Your task to perform on an android device: turn on javascript in the chrome app Image 0: 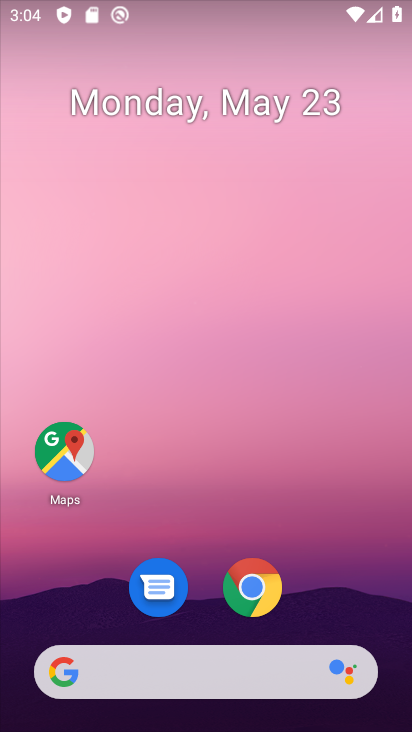
Step 0: press home button
Your task to perform on an android device: turn on javascript in the chrome app Image 1: 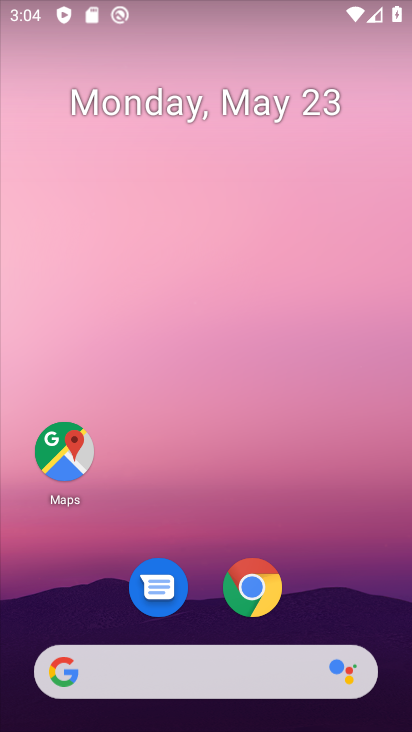
Step 1: drag from (171, 679) to (330, 143)
Your task to perform on an android device: turn on javascript in the chrome app Image 2: 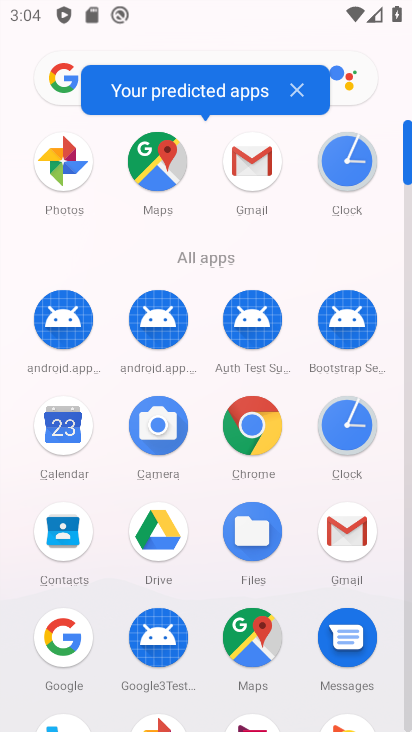
Step 2: click (252, 430)
Your task to perform on an android device: turn on javascript in the chrome app Image 3: 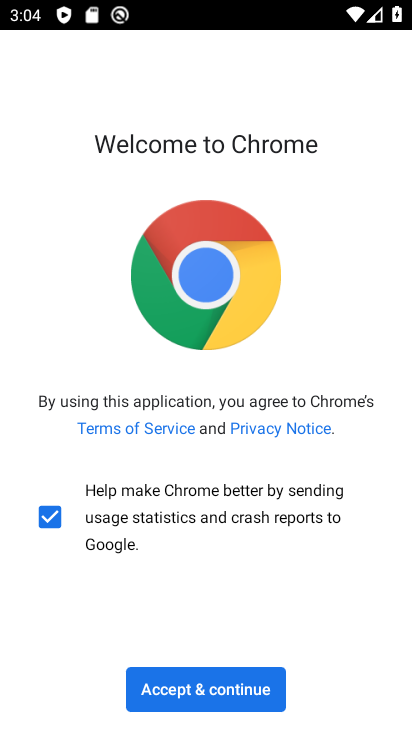
Step 3: click (185, 697)
Your task to perform on an android device: turn on javascript in the chrome app Image 4: 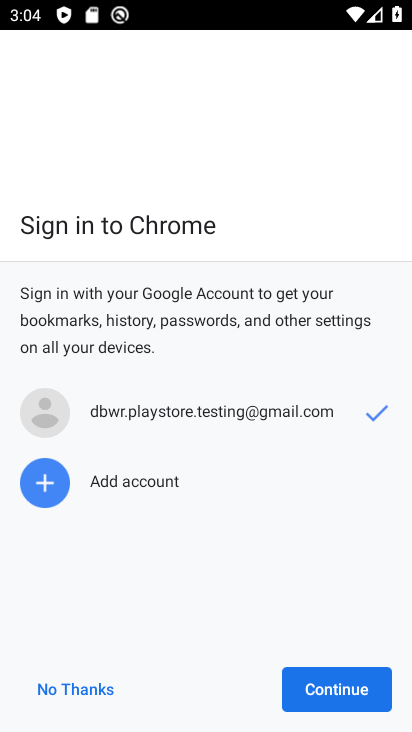
Step 4: click (325, 683)
Your task to perform on an android device: turn on javascript in the chrome app Image 5: 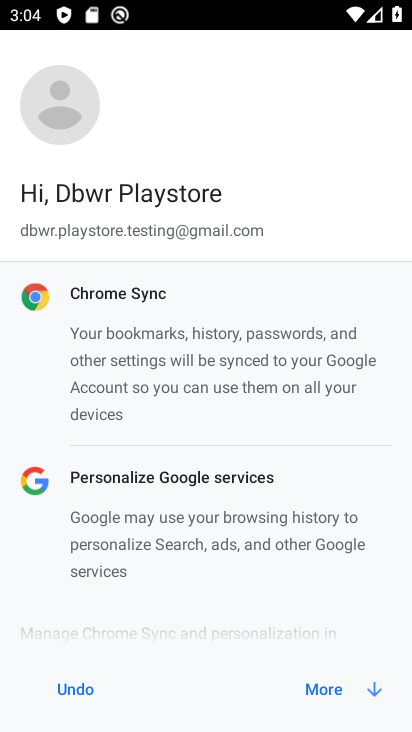
Step 5: click (328, 692)
Your task to perform on an android device: turn on javascript in the chrome app Image 6: 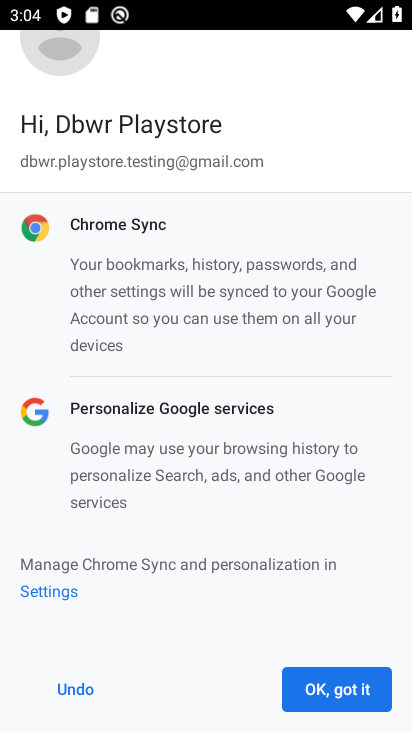
Step 6: click (328, 692)
Your task to perform on an android device: turn on javascript in the chrome app Image 7: 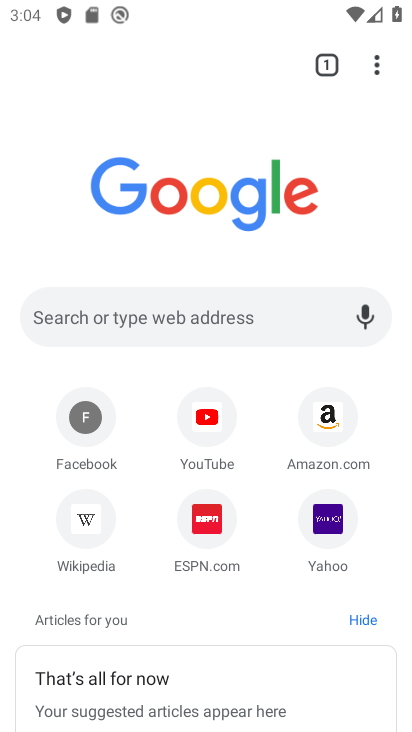
Step 7: drag from (377, 62) to (176, 542)
Your task to perform on an android device: turn on javascript in the chrome app Image 8: 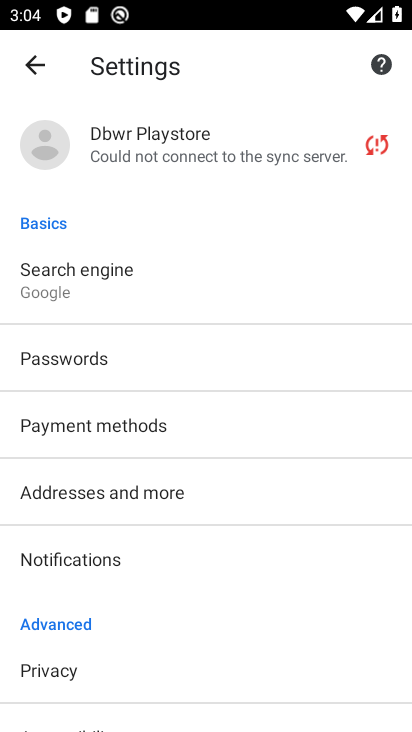
Step 8: drag from (167, 575) to (302, 264)
Your task to perform on an android device: turn on javascript in the chrome app Image 9: 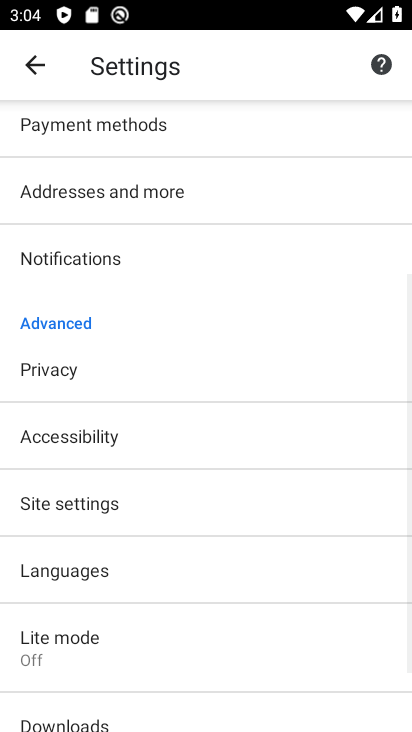
Step 9: click (124, 520)
Your task to perform on an android device: turn on javascript in the chrome app Image 10: 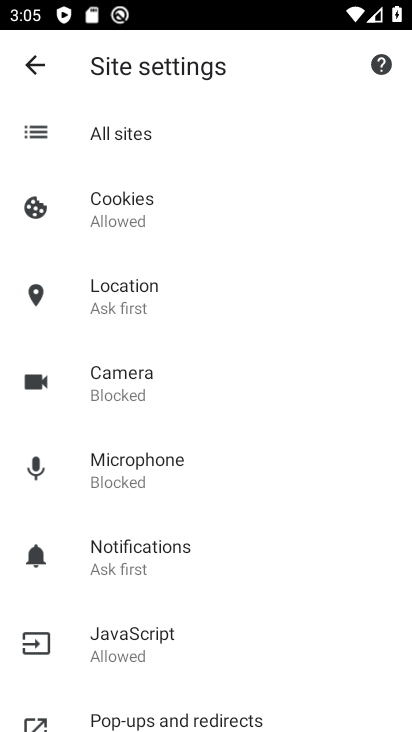
Step 10: click (151, 653)
Your task to perform on an android device: turn on javascript in the chrome app Image 11: 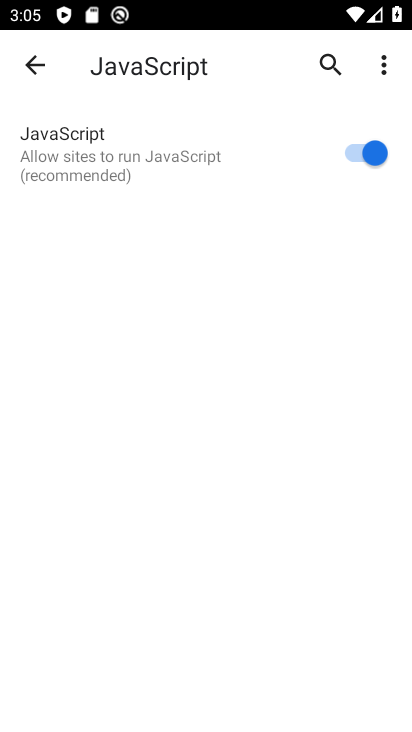
Step 11: task complete